Your task to perform on an android device: Open the web browser Image 0: 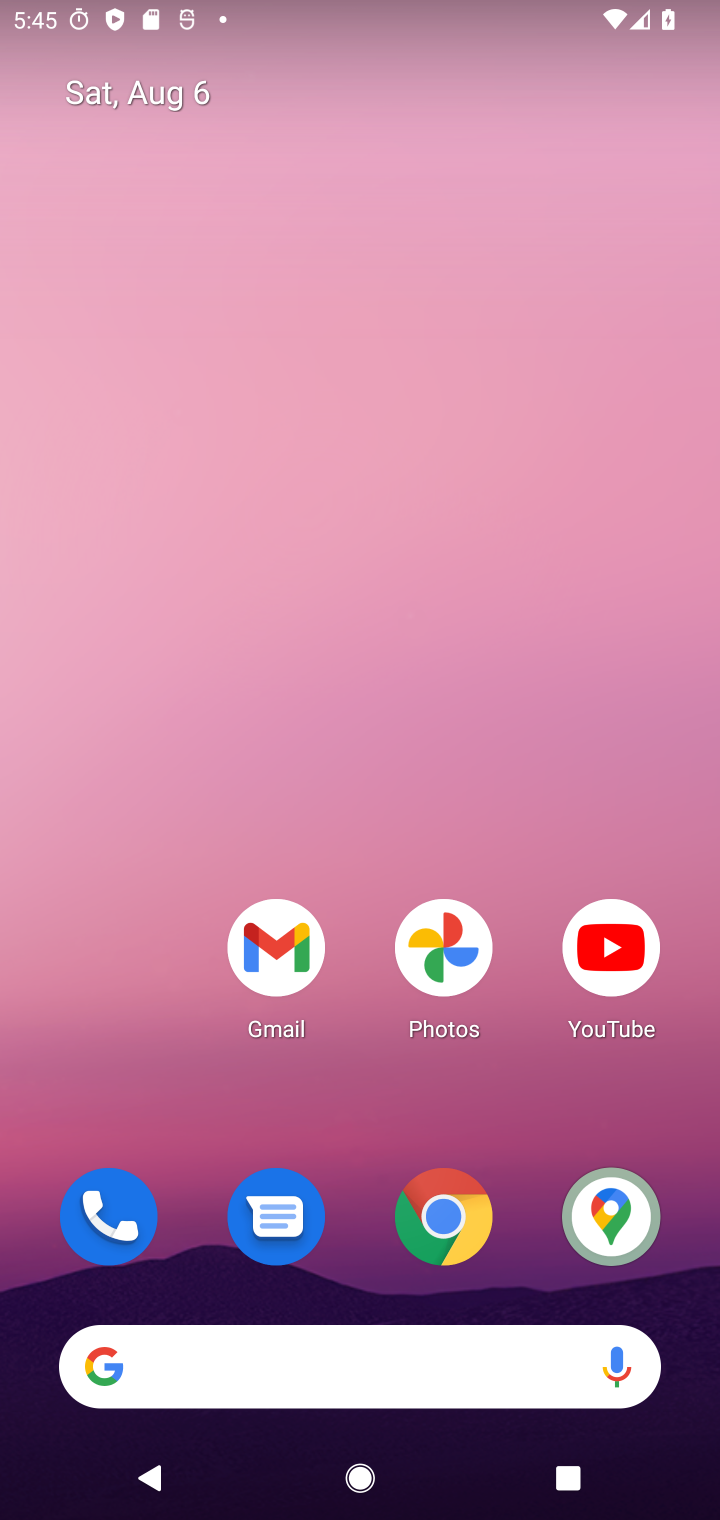
Step 0: drag from (474, 849) to (365, 2)
Your task to perform on an android device: Open the web browser Image 1: 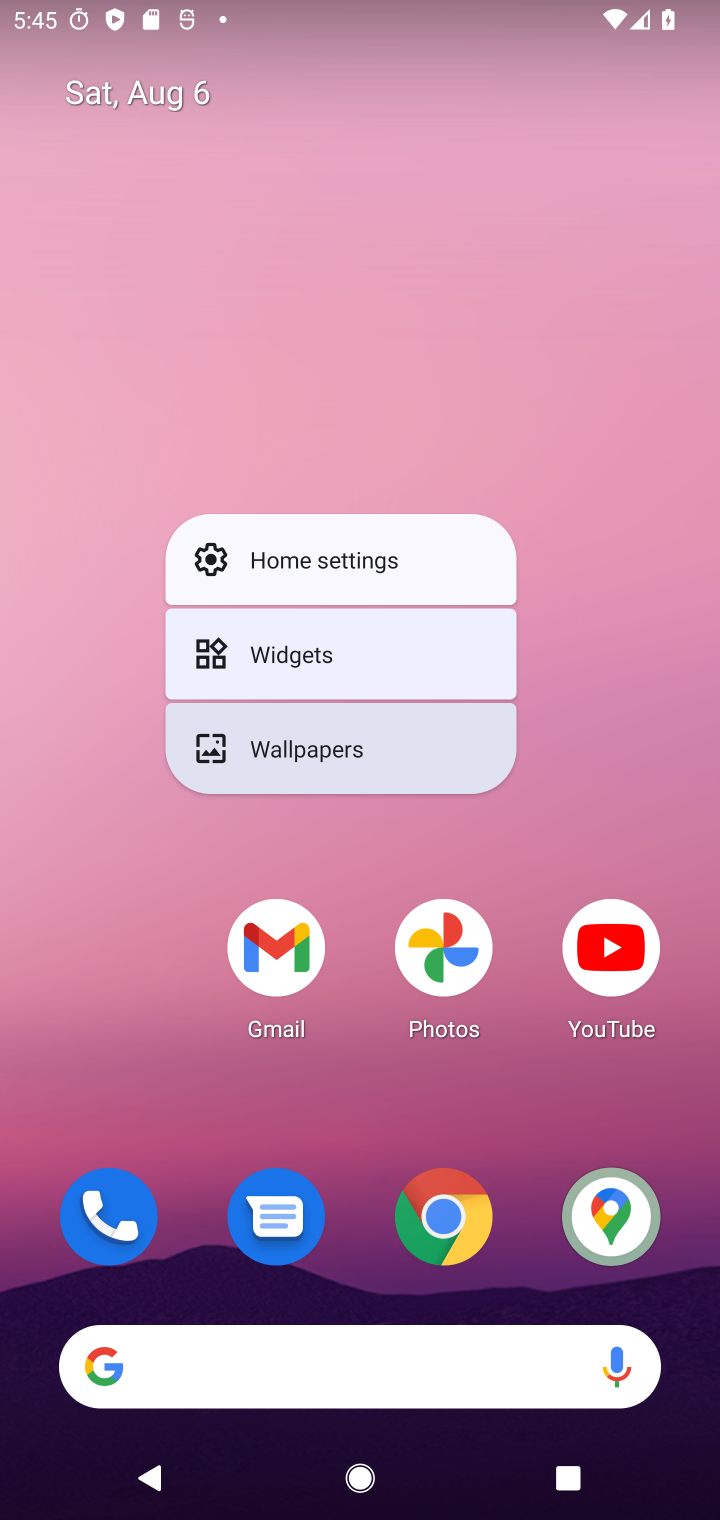
Step 1: click (578, 260)
Your task to perform on an android device: Open the web browser Image 2: 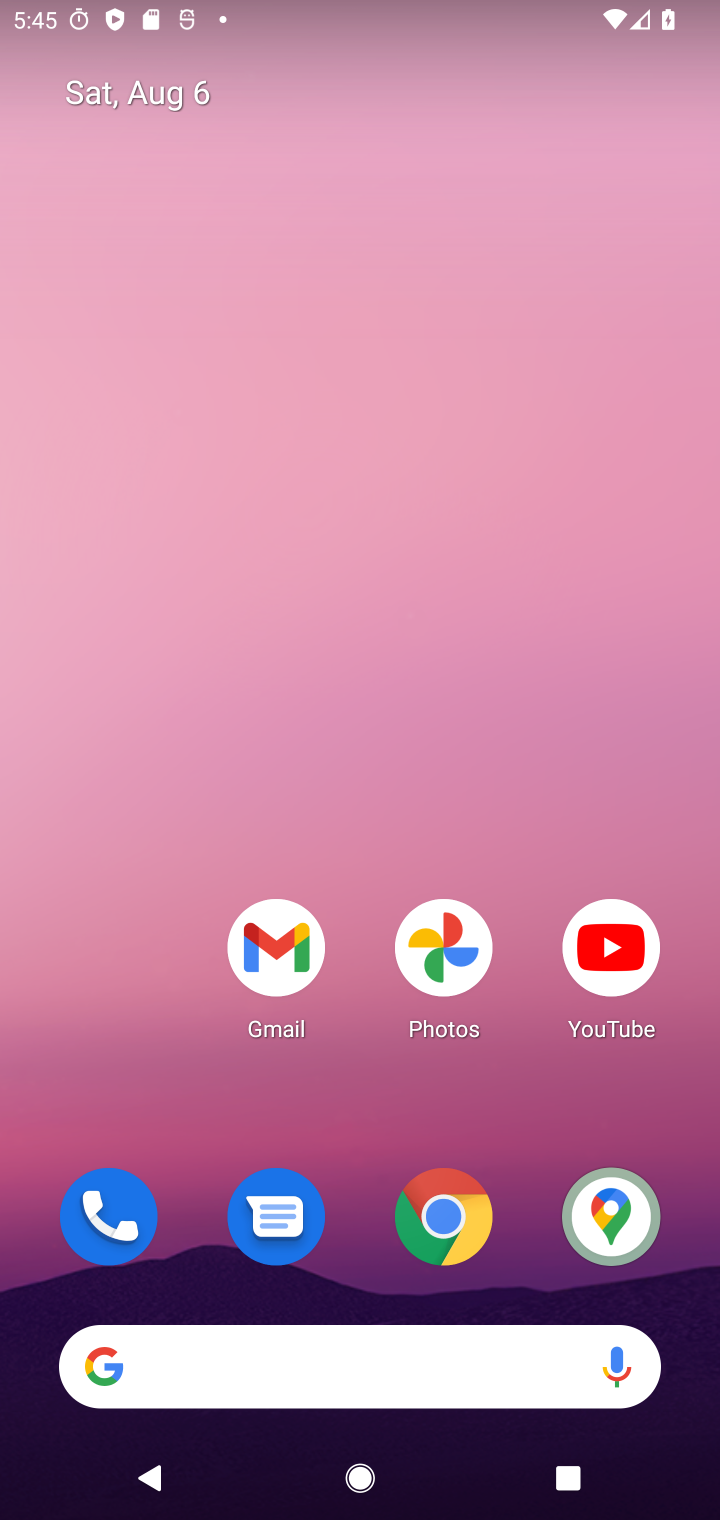
Step 2: drag from (537, 1122) to (459, 65)
Your task to perform on an android device: Open the web browser Image 3: 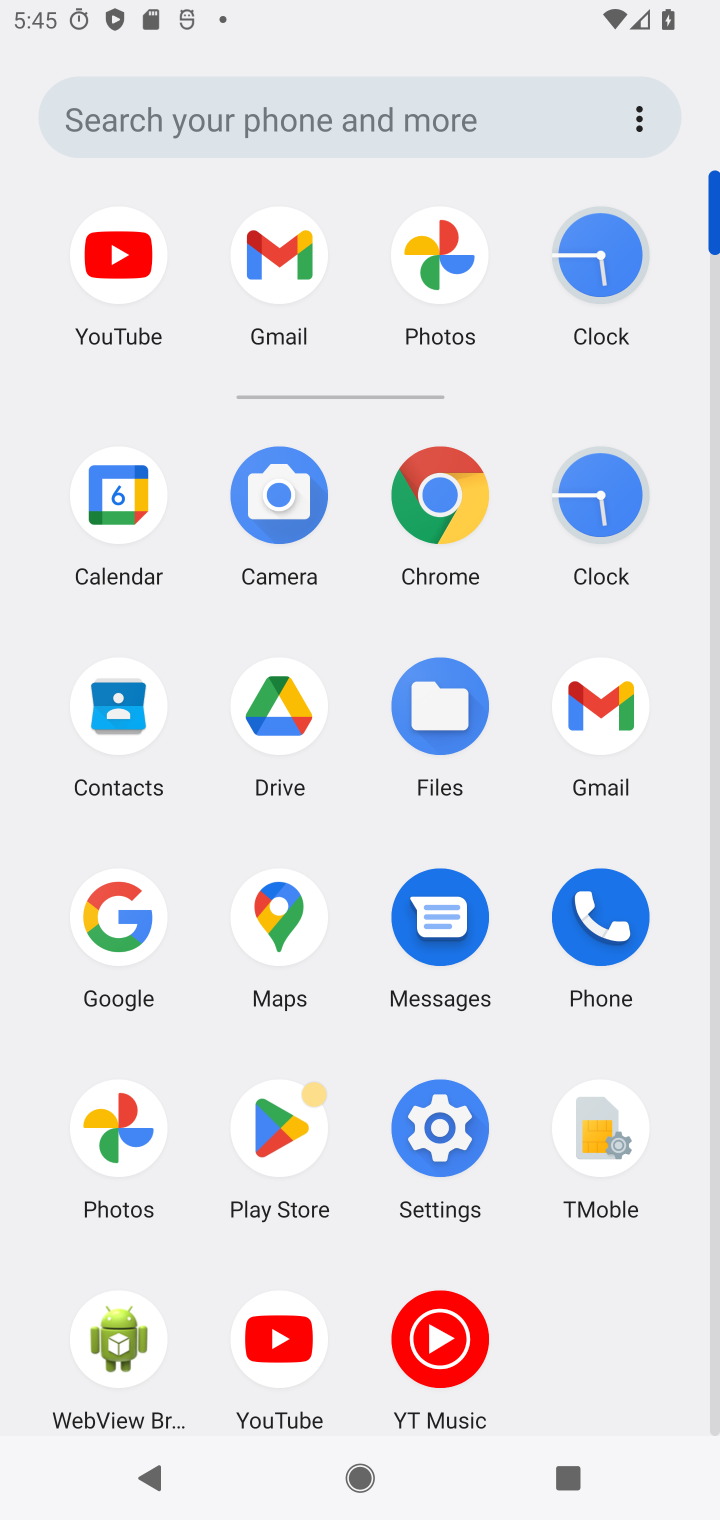
Step 3: click (444, 498)
Your task to perform on an android device: Open the web browser Image 4: 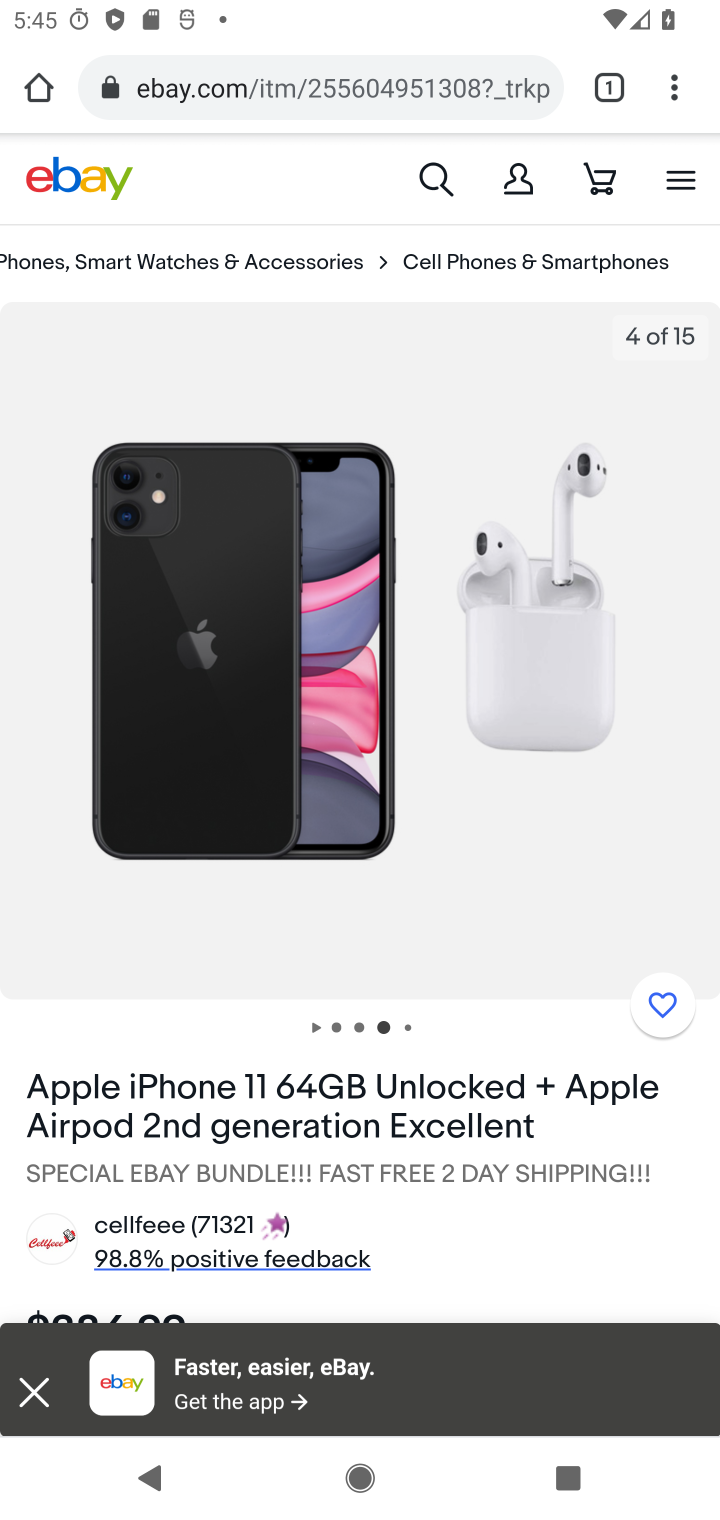
Step 4: task complete